Your task to perform on an android device: turn notification dots on Image 0: 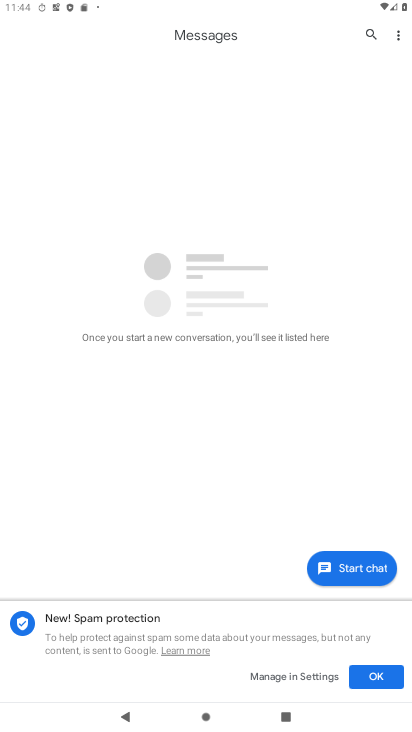
Step 0: press home button
Your task to perform on an android device: turn notification dots on Image 1: 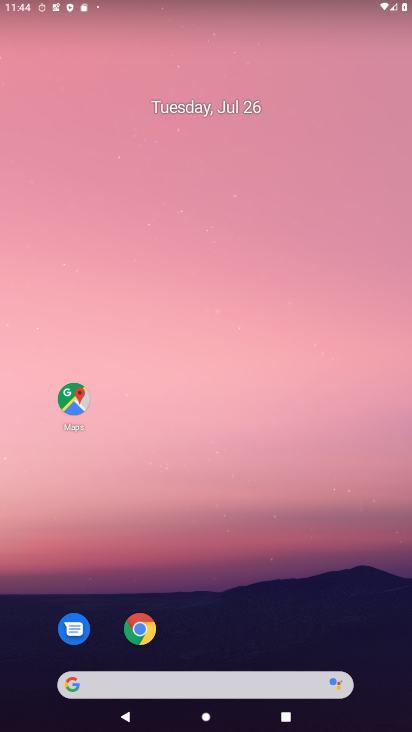
Step 1: drag from (327, 615) to (195, 89)
Your task to perform on an android device: turn notification dots on Image 2: 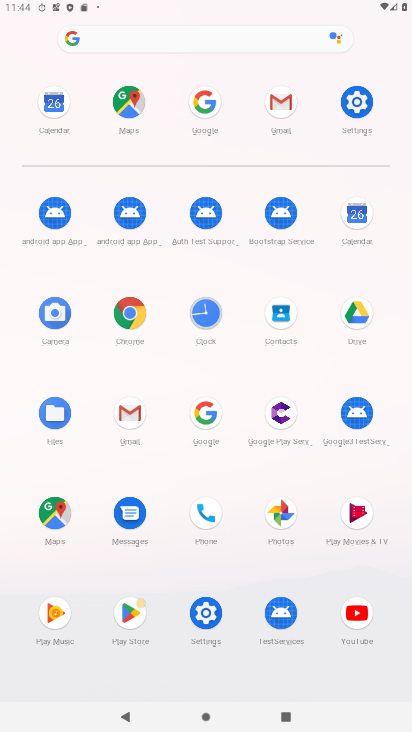
Step 2: click (203, 612)
Your task to perform on an android device: turn notification dots on Image 3: 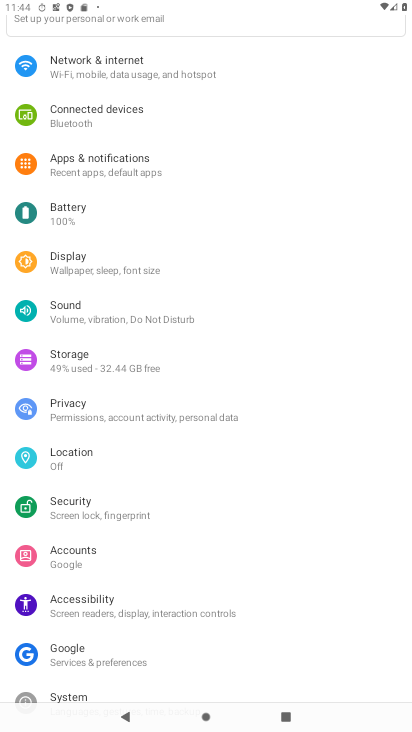
Step 3: click (98, 165)
Your task to perform on an android device: turn notification dots on Image 4: 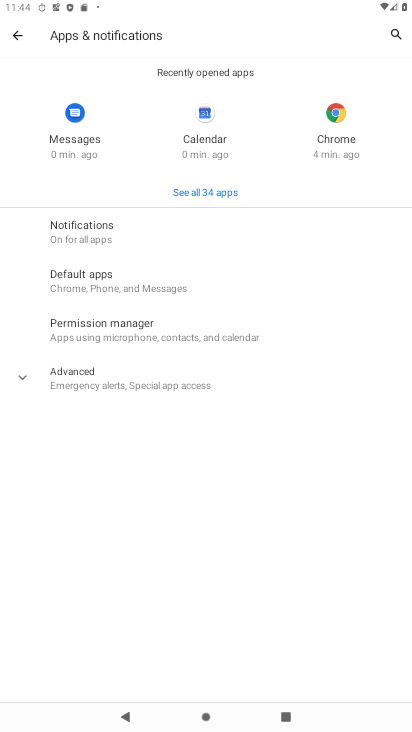
Step 4: click (87, 231)
Your task to perform on an android device: turn notification dots on Image 5: 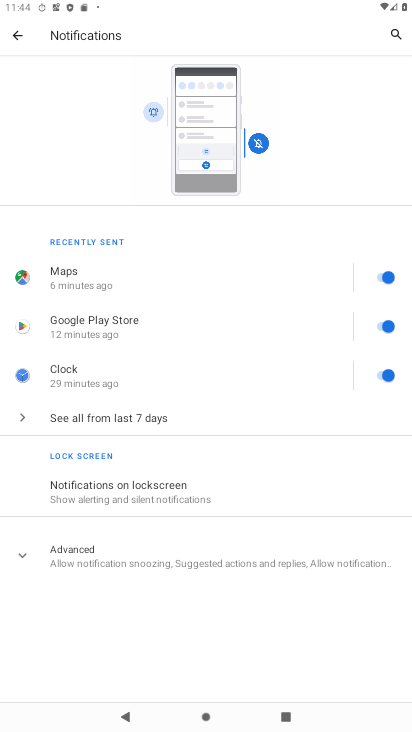
Step 5: click (63, 558)
Your task to perform on an android device: turn notification dots on Image 6: 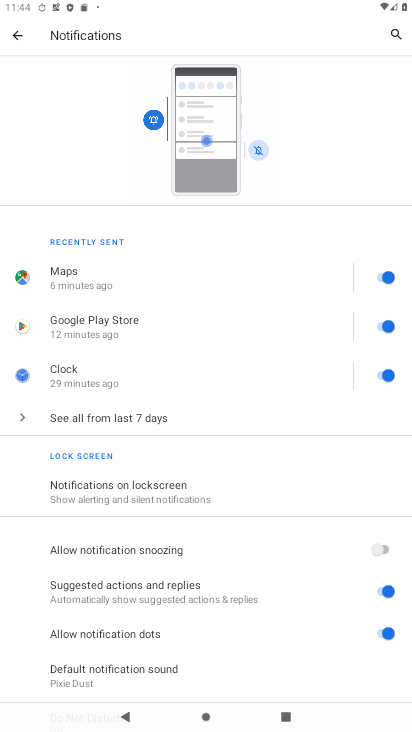
Step 6: task complete